Your task to perform on an android device: Is it going to rain this weekend? Image 0: 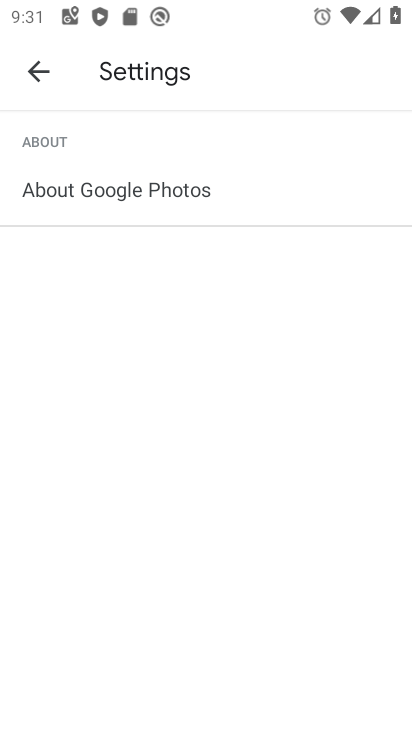
Step 0: press home button
Your task to perform on an android device: Is it going to rain this weekend? Image 1: 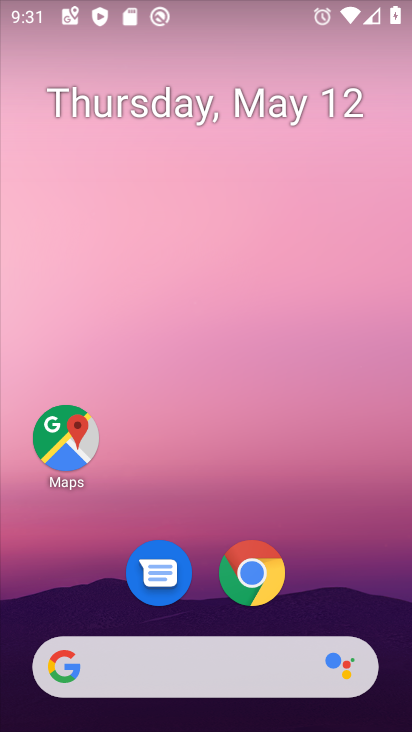
Step 1: drag from (318, 589) to (212, 139)
Your task to perform on an android device: Is it going to rain this weekend? Image 2: 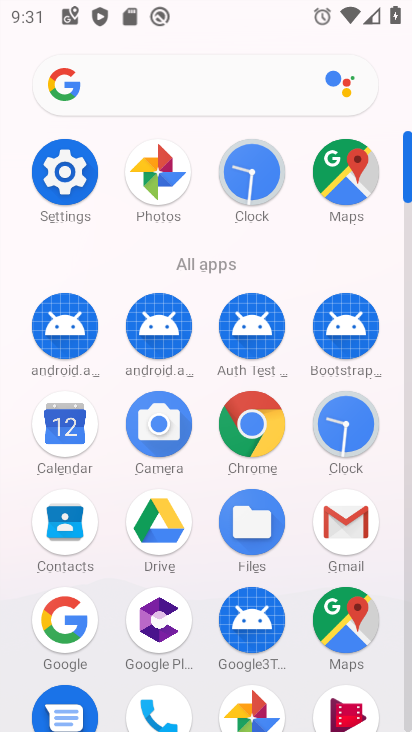
Step 2: click (57, 622)
Your task to perform on an android device: Is it going to rain this weekend? Image 3: 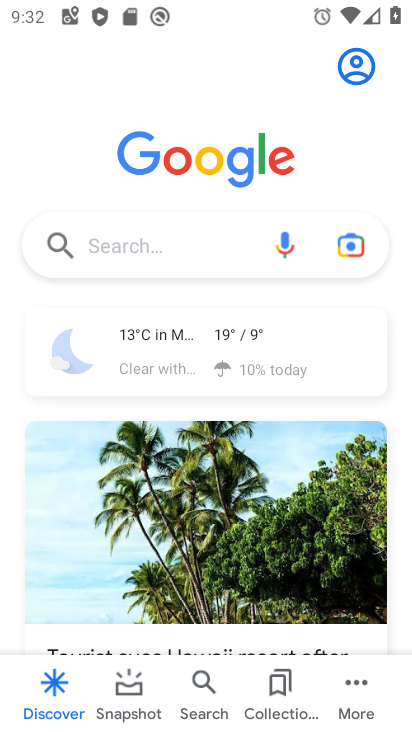
Step 3: type "Is it going to rain this weekend?"
Your task to perform on an android device: Is it going to rain this weekend? Image 4: 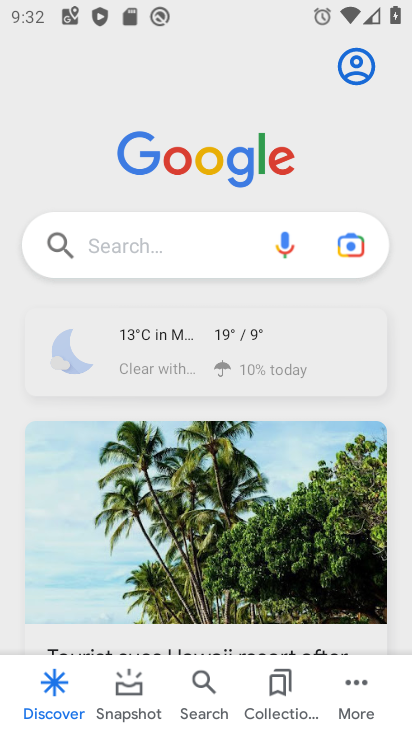
Step 4: click (138, 237)
Your task to perform on an android device: Is it going to rain this weekend? Image 5: 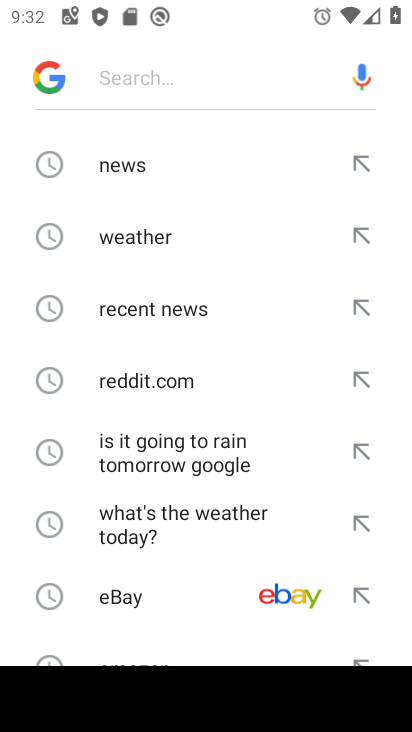
Step 5: type "Is it going to rain this weekend?"
Your task to perform on an android device: Is it going to rain this weekend? Image 6: 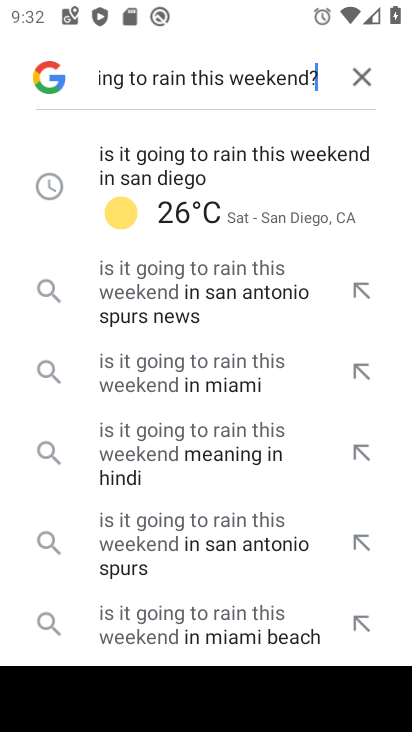
Step 6: type ""
Your task to perform on an android device: Is it going to rain this weekend? Image 7: 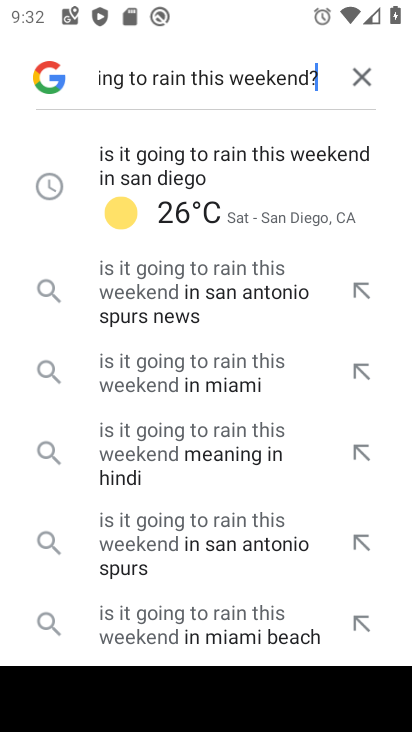
Step 7: click (174, 162)
Your task to perform on an android device: Is it going to rain this weekend? Image 8: 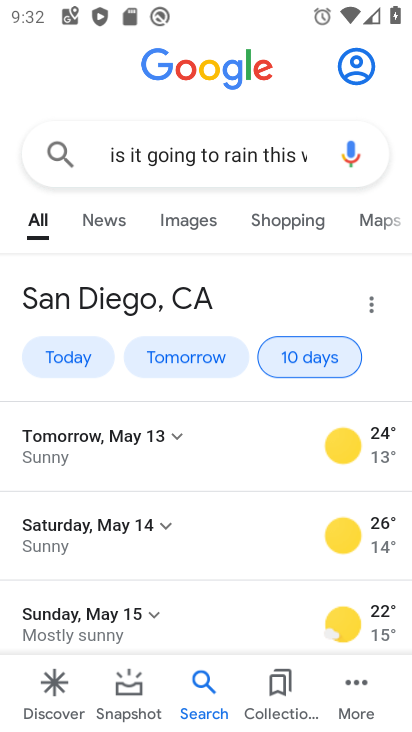
Step 8: task complete